Your task to perform on an android device: When is my next meeting? Image 0: 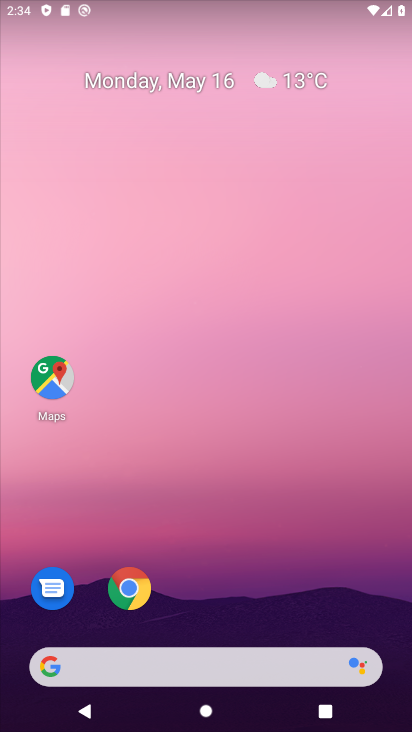
Step 0: click (168, 81)
Your task to perform on an android device: When is my next meeting? Image 1: 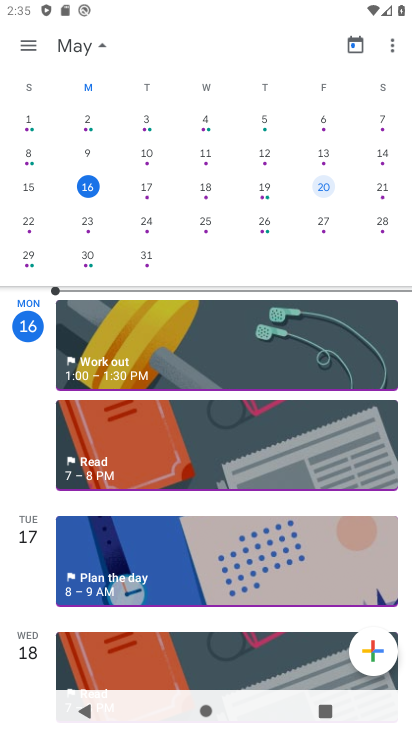
Step 1: click (395, 549)
Your task to perform on an android device: When is my next meeting? Image 2: 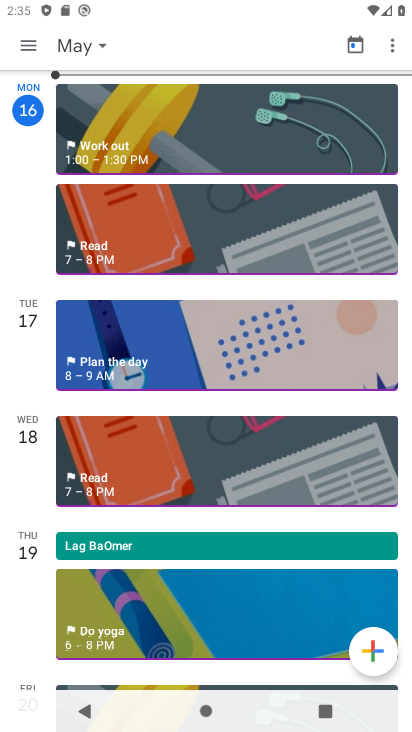
Step 2: task complete